Your task to perform on an android device: Show me the alarms in the clock app Image 0: 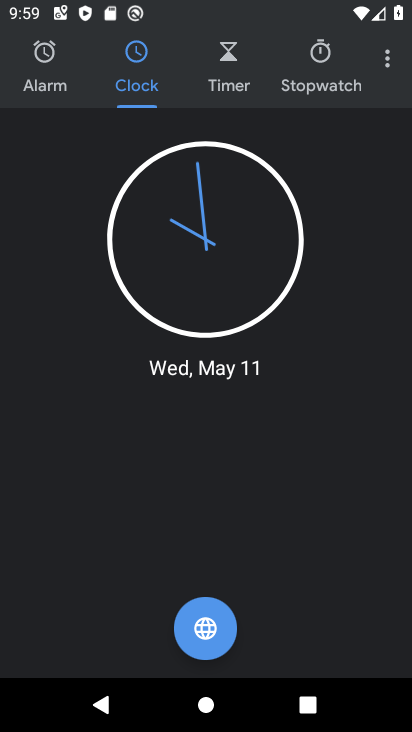
Step 0: press home button
Your task to perform on an android device: Show me the alarms in the clock app Image 1: 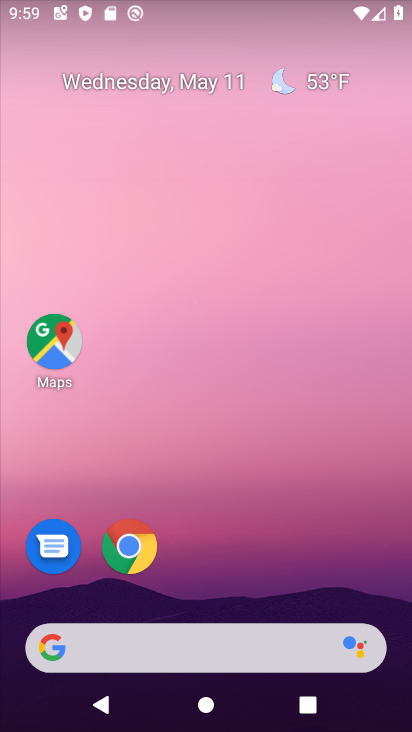
Step 1: drag from (394, 623) to (306, 77)
Your task to perform on an android device: Show me the alarms in the clock app Image 2: 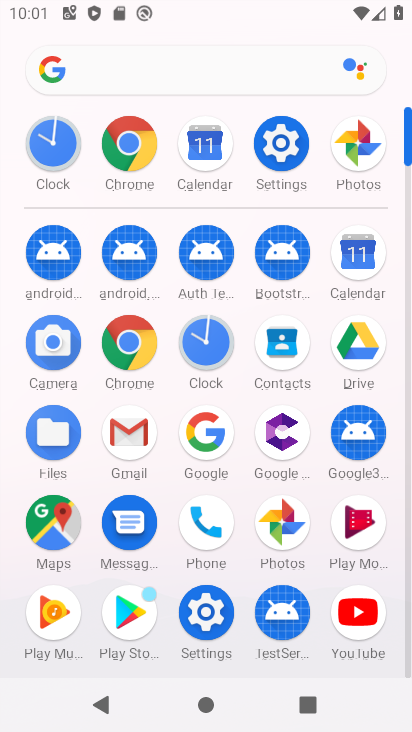
Step 2: click (214, 340)
Your task to perform on an android device: Show me the alarms in the clock app Image 3: 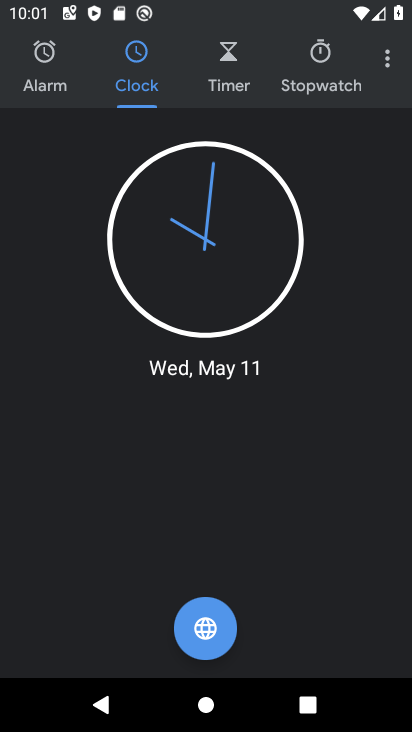
Step 3: click (42, 57)
Your task to perform on an android device: Show me the alarms in the clock app Image 4: 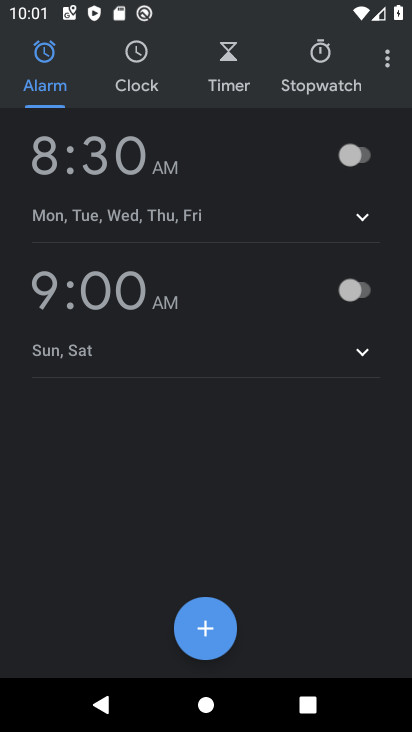
Step 4: task complete